Your task to perform on an android device: Go to accessibility settings Image 0: 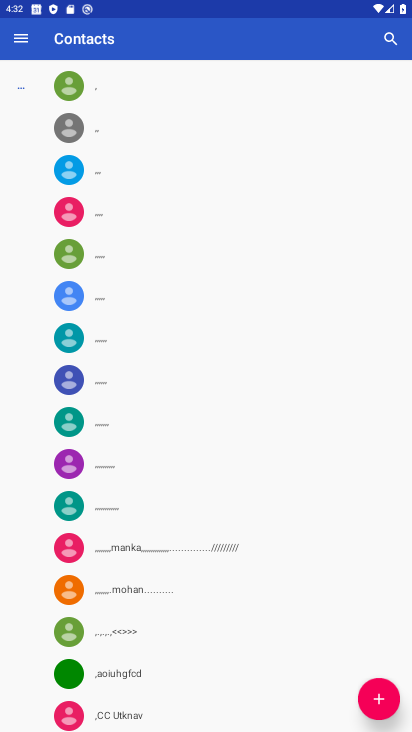
Step 0: press home button
Your task to perform on an android device: Go to accessibility settings Image 1: 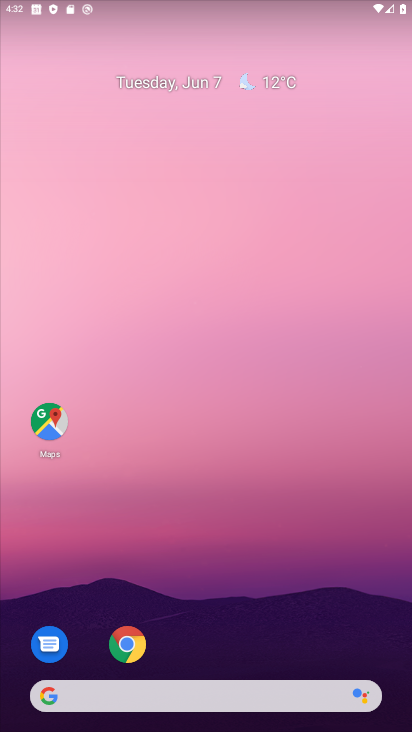
Step 1: drag from (294, 533) to (289, 57)
Your task to perform on an android device: Go to accessibility settings Image 2: 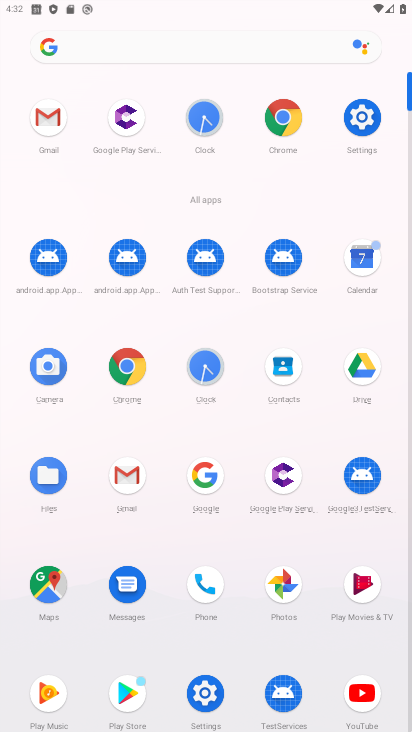
Step 2: click (357, 103)
Your task to perform on an android device: Go to accessibility settings Image 3: 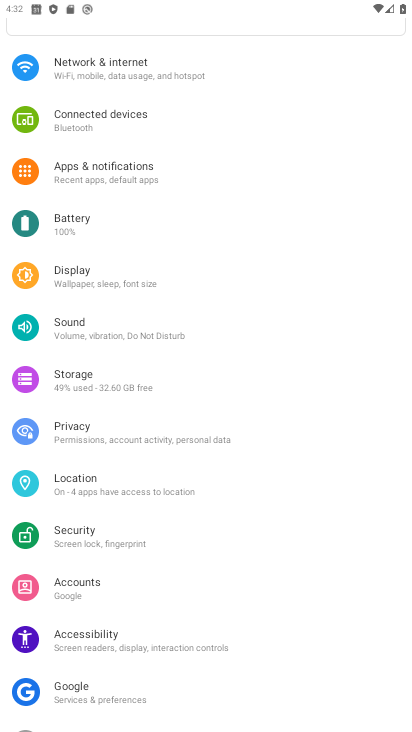
Step 3: click (95, 641)
Your task to perform on an android device: Go to accessibility settings Image 4: 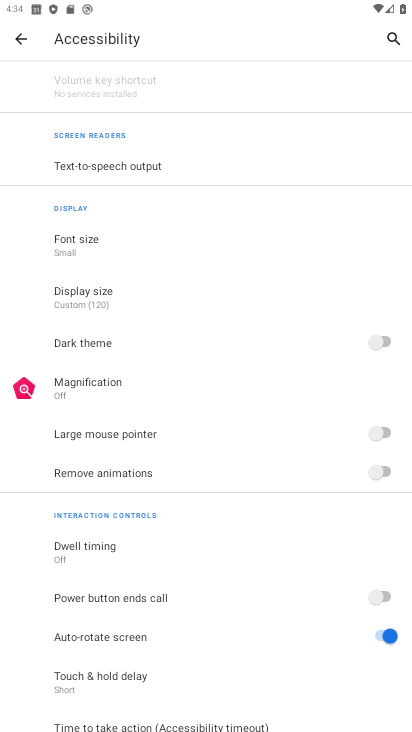
Step 4: task complete